Your task to perform on an android device: Check the latest toasters on Target. Image 0: 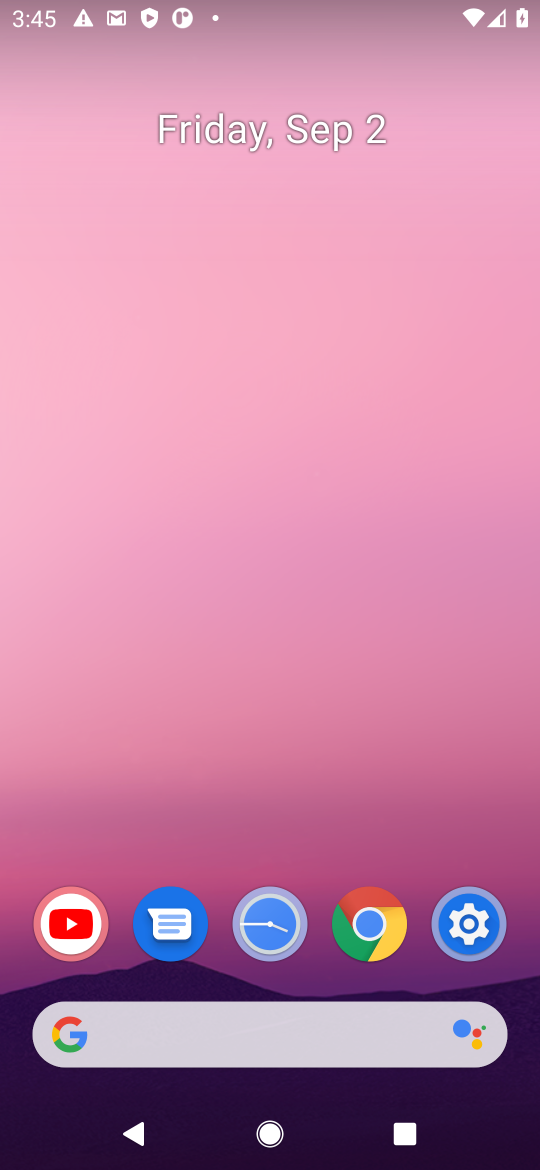
Step 0: press home button
Your task to perform on an android device: Check the latest toasters on Target. Image 1: 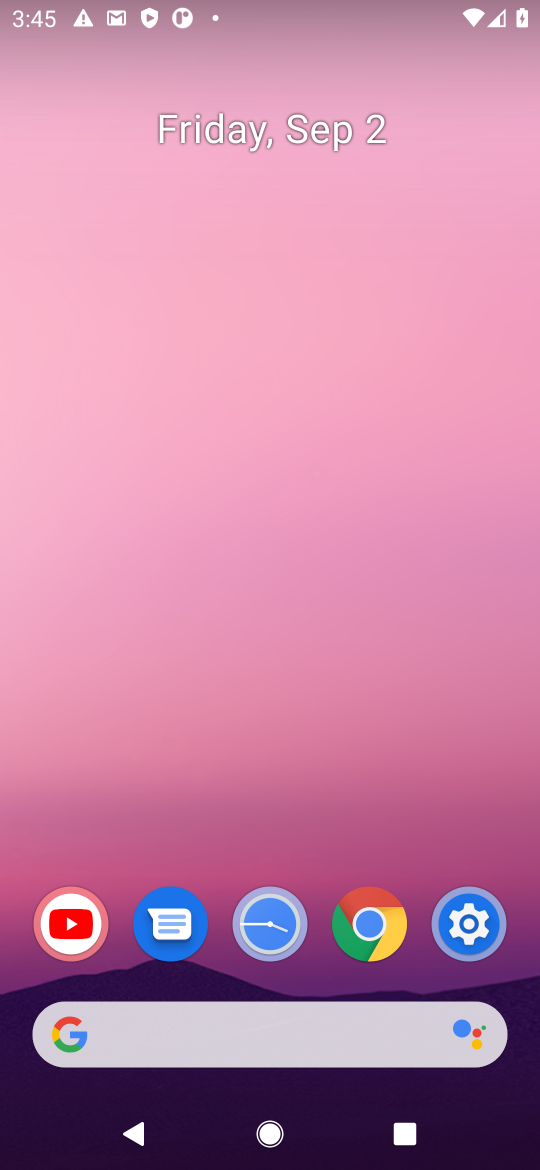
Step 1: click (336, 1038)
Your task to perform on an android device: Check the latest toasters on Target. Image 2: 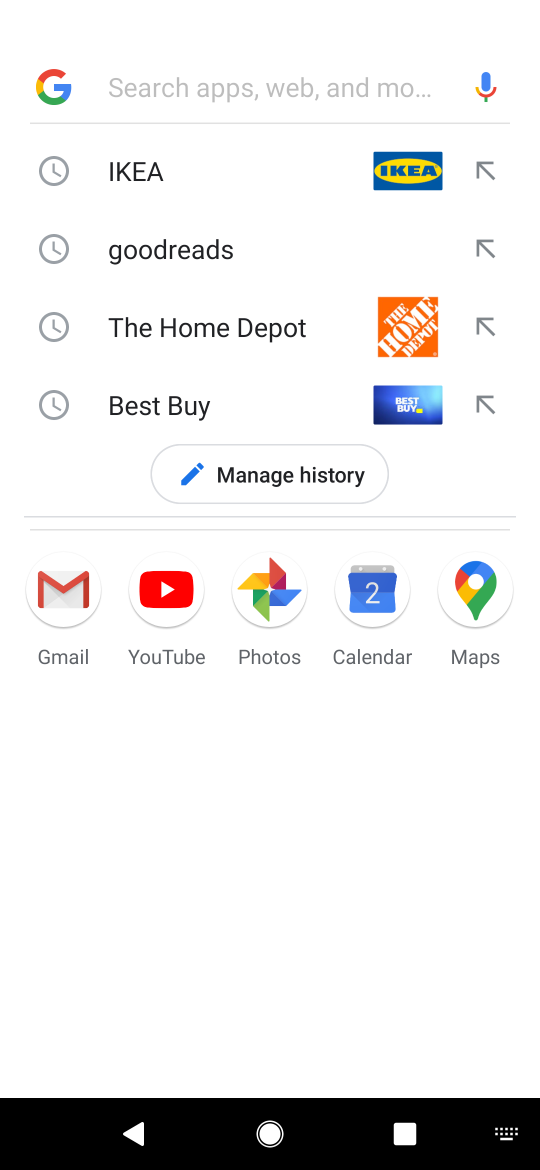
Step 2: press enter
Your task to perform on an android device: Check the latest toasters on Target. Image 3: 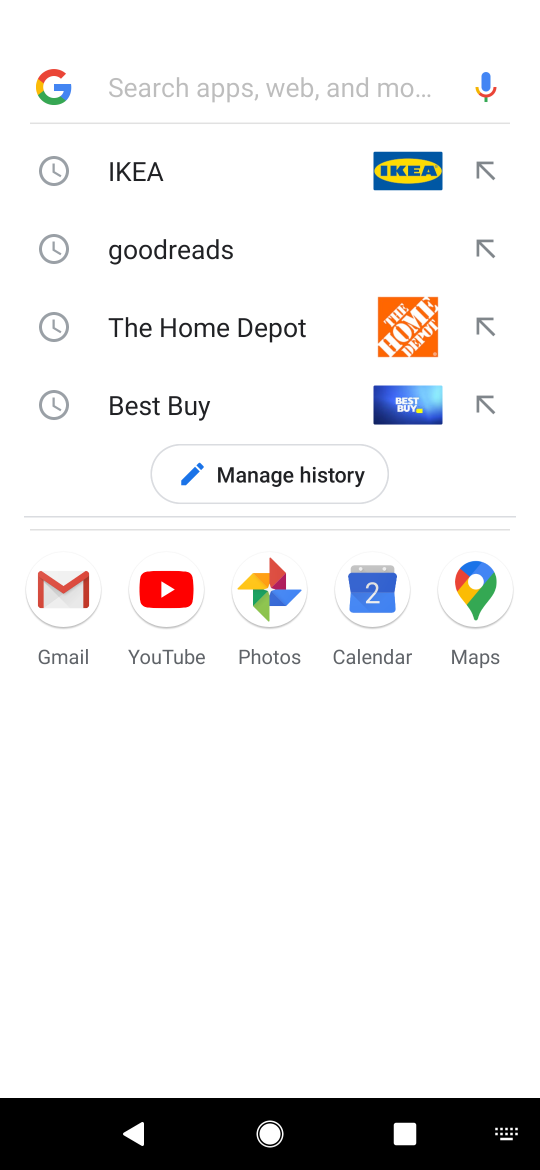
Step 3: type "target"
Your task to perform on an android device: Check the latest toasters on Target. Image 4: 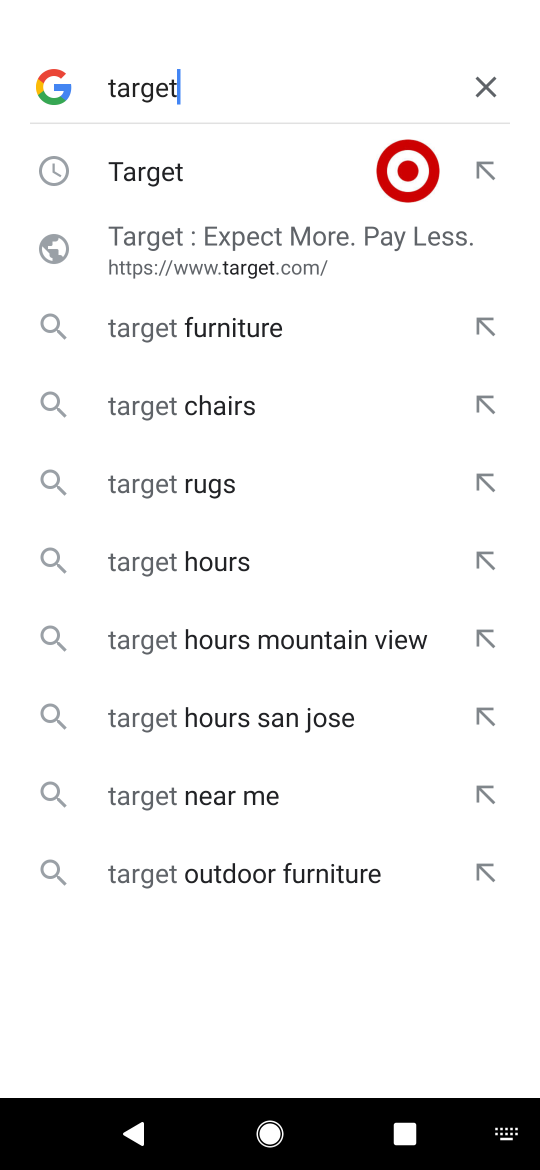
Step 4: click (251, 268)
Your task to perform on an android device: Check the latest toasters on Target. Image 5: 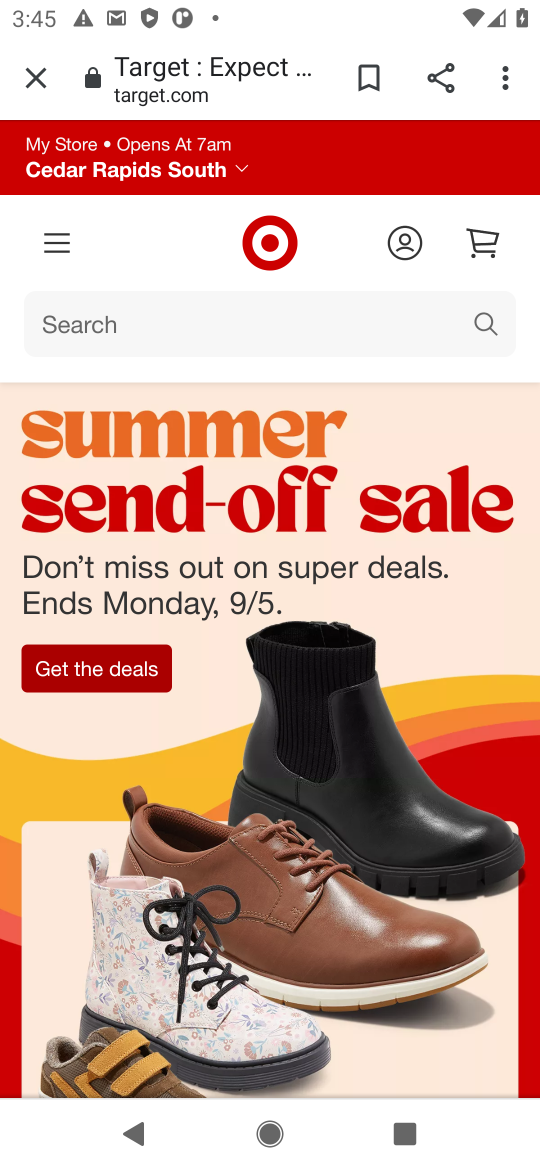
Step 5: click (124, 322)
Your task to perform on an android device: Check the latest toasters on Target. Image 6: 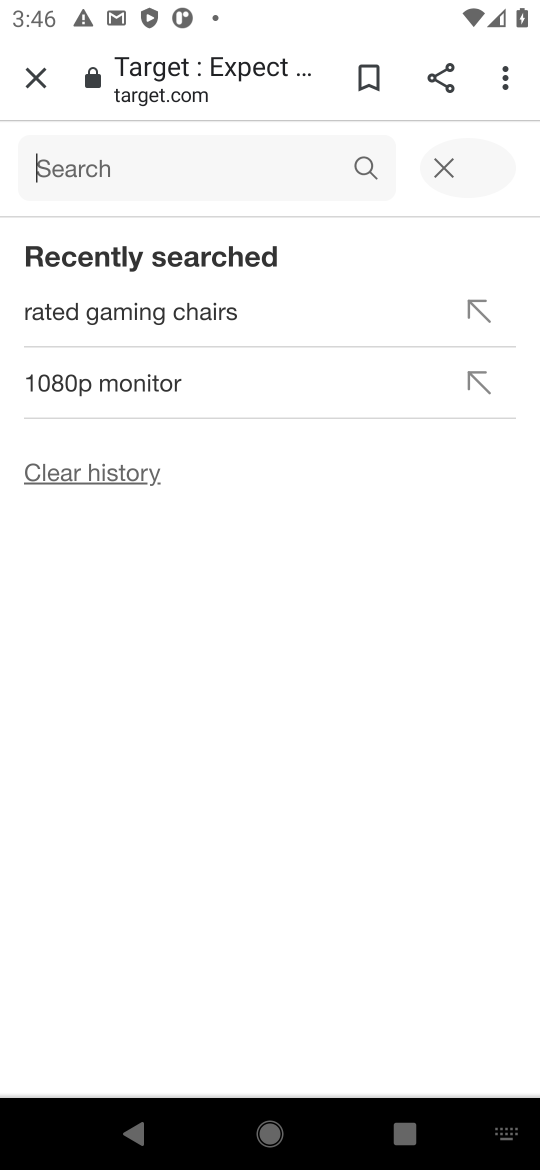
Step 6: type "laest toasters"
Your task to perform on an android device: Check the latest toasters on Target. Image 7: 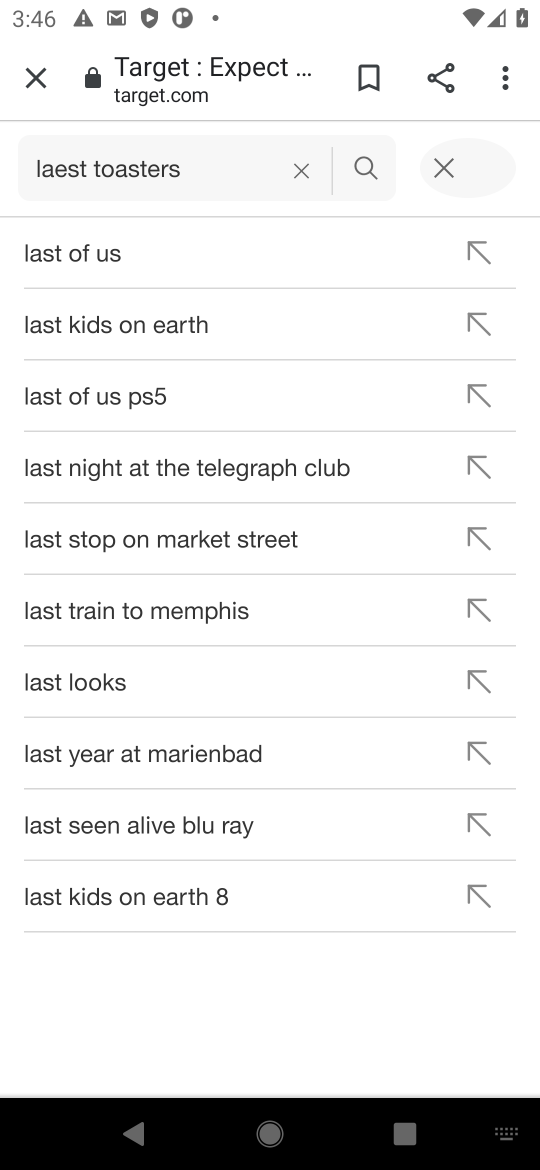
Step 7: click (367, 179)
Your task to perform on an android device: Check the latest toasters on Target. Image 8: 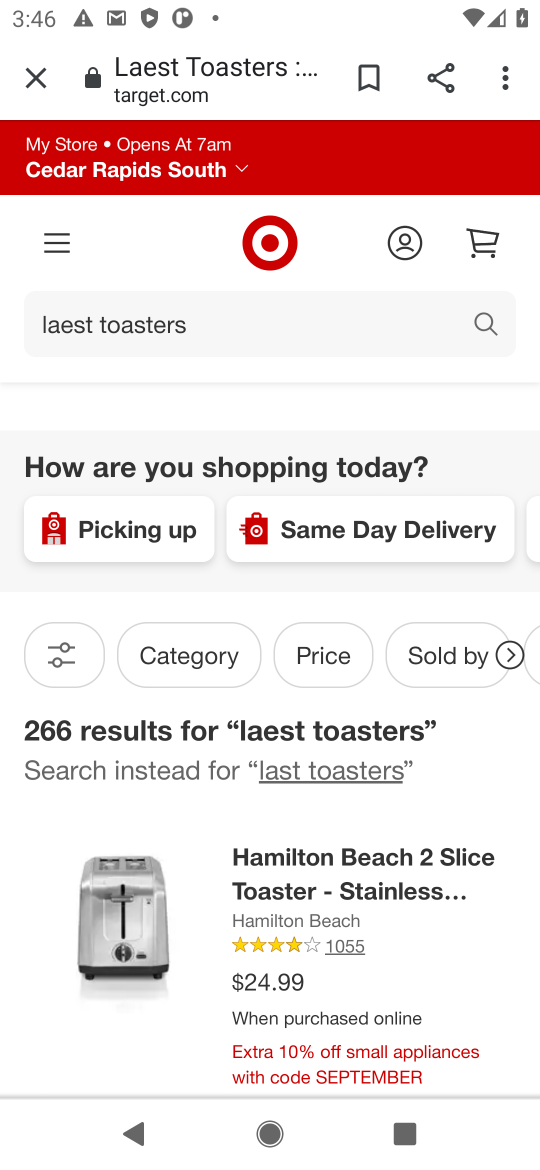
Step 8: task complete